Your task to perform on an android device: Is it going to rain today? Image 0: 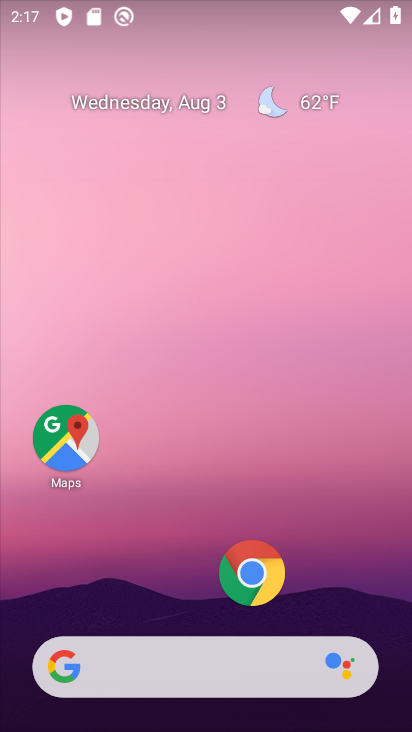
Step 0: click (176, 659)
Your task to perform on an android device: Is it going to rain today? Image 1: 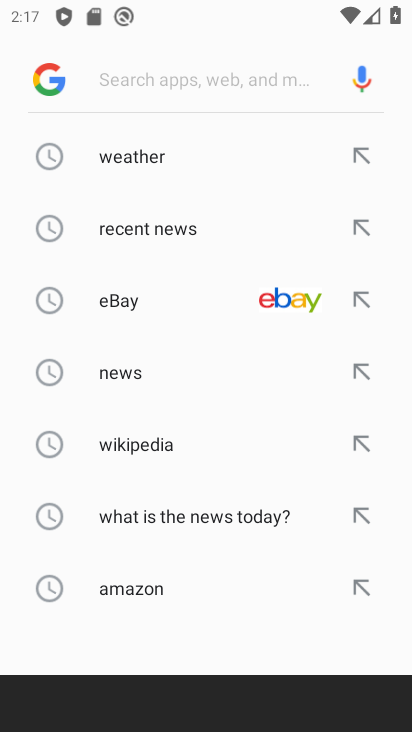
Step 1: click (140, 160)
Your task to perform on an android device: Is it going to rain today? Image 2: 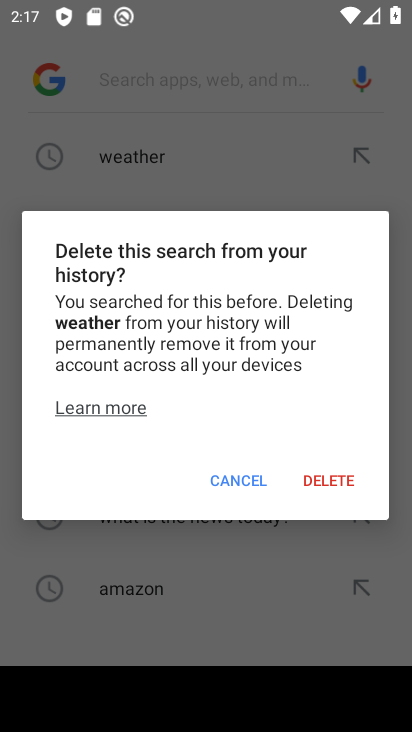
Step 2: click (239, 486)
Your task to perform on an android device: Is it going to rain today? Image 3: 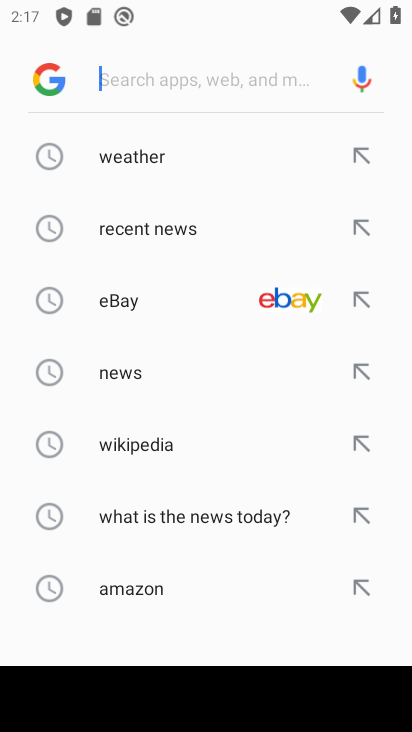
Step 3: click (126, 171)
Your task to perform on an android device: Is it going to rain today? Image 4: 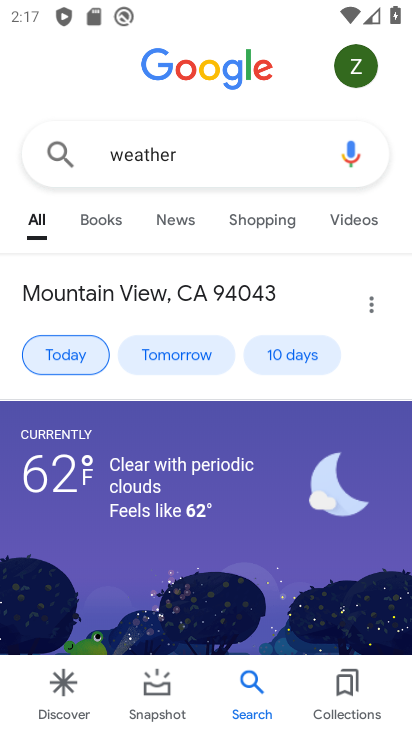
Step 4: task complete